Your task to perform on an android device: Go to calendar. Show me events next week Image 0: 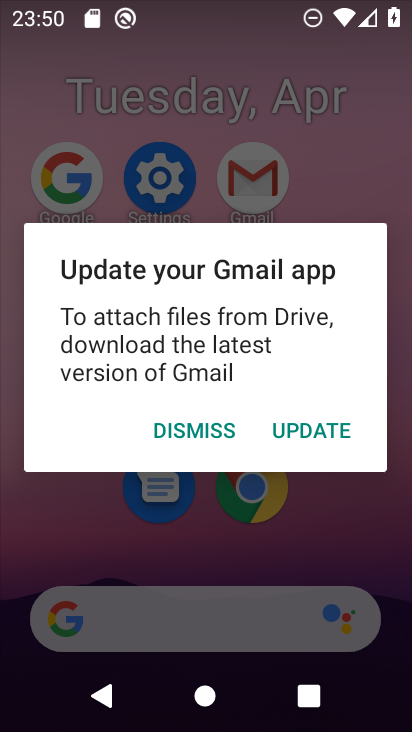
Step 0: click (337, 425)
Your task to perform on an android device: Go to calendar. Show me events next week Image 1: 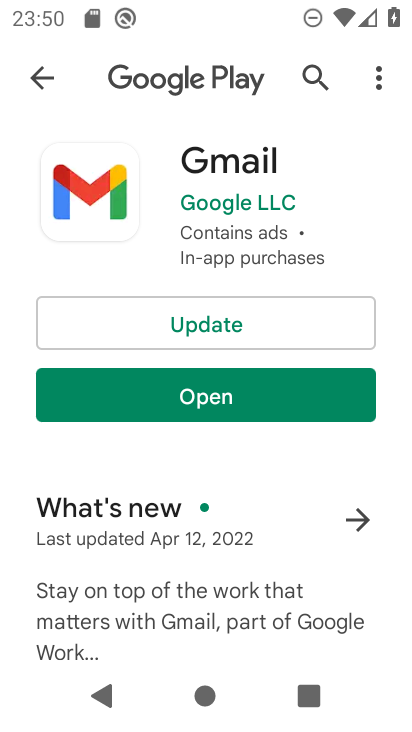
Step 1: click (280, 319)
Your task to perform on an android device: Go to calendar. Show me events next week Image 2: 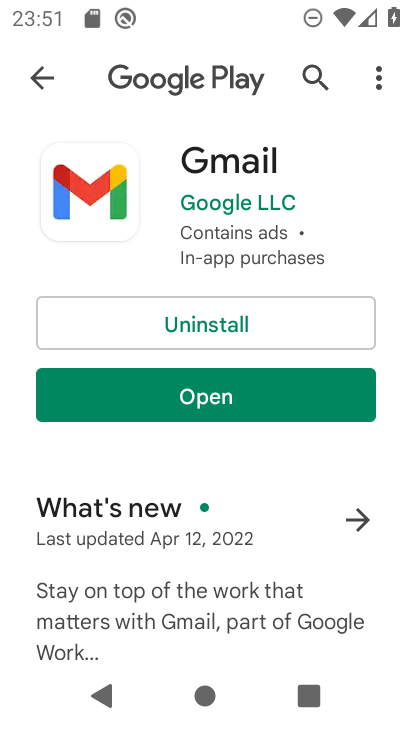
Step 2: press home button
Your task to perform on an android device: Go to calendar. Show me events next week Image 3: 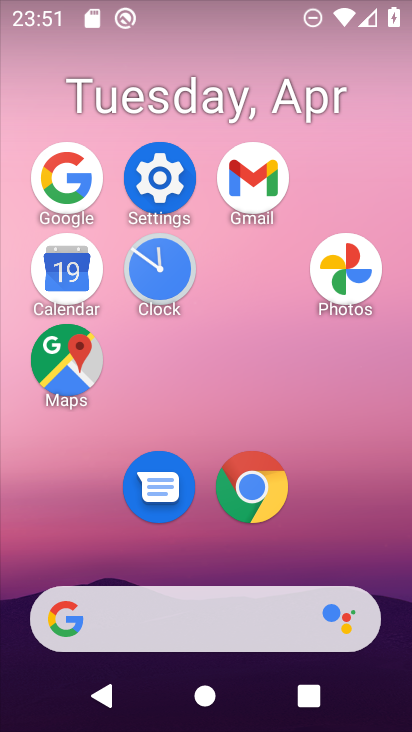
Step 3: click (65, 282)
Your task to perform on an android device: Go to calendar. Show me events next week Image 4: 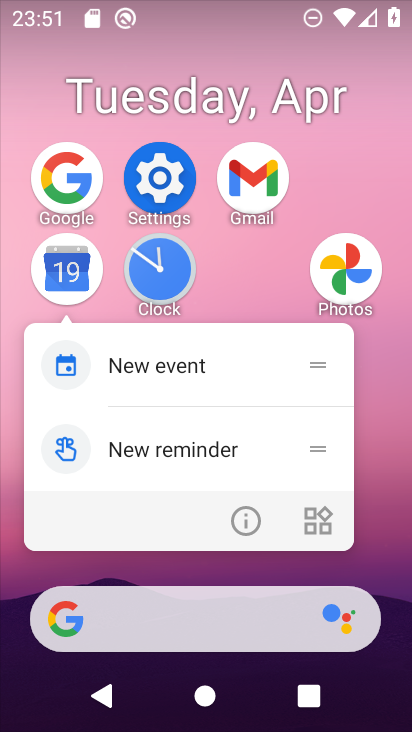
Step 4: click (82, 261)
Your task to perform on an android device: Go to calendar. Show me events next week Image 5: 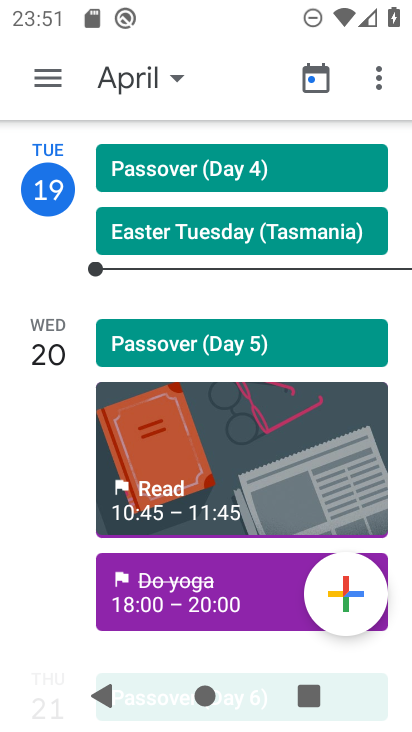
Step 5: click (53, 83)
Your task to perform on an android device: Go to calendar. Show me events next week Image 6: 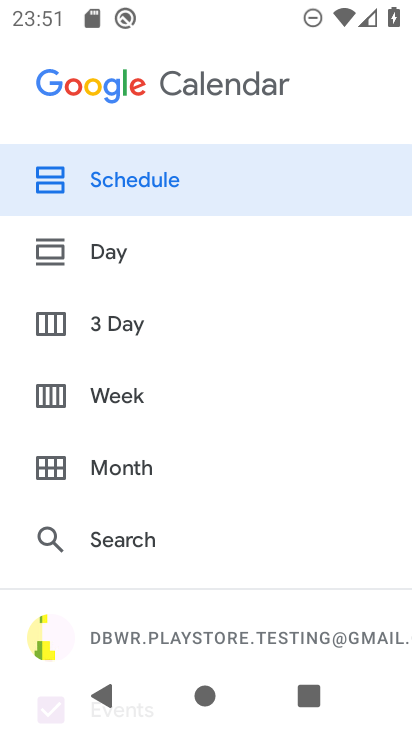
Step 6: click (109, 396)
Your task to perform on an android device: Go to calendar. Show me events next week Image 7: 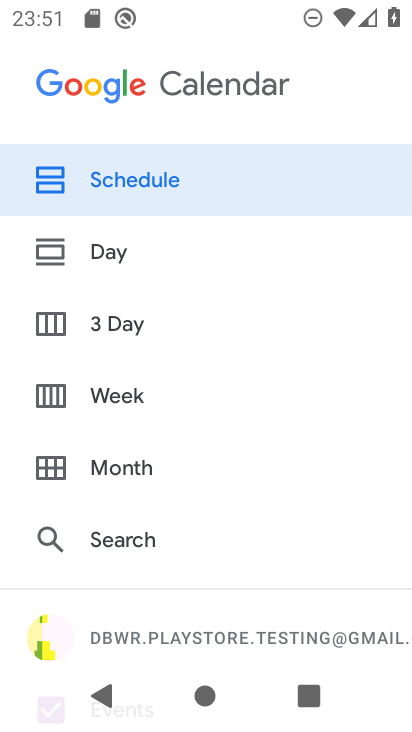
Step 7: click (126, 394)
Your task to perform on an android device: Go to calendar. Show me events next week Image 8: 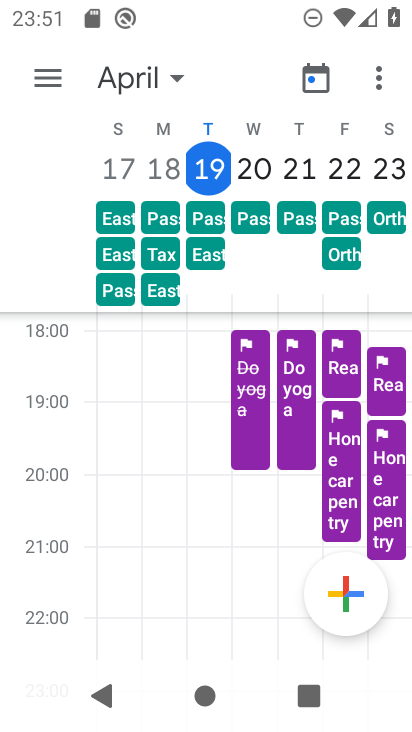
Step 8: task complete